Your task to perform on an android device: What's the news in Uruguay? Image 0: 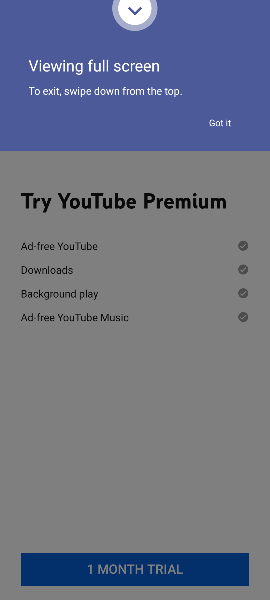
Step 0: press home button
Your task to perform on an android device: What's the news in Uruguay? Image 1: 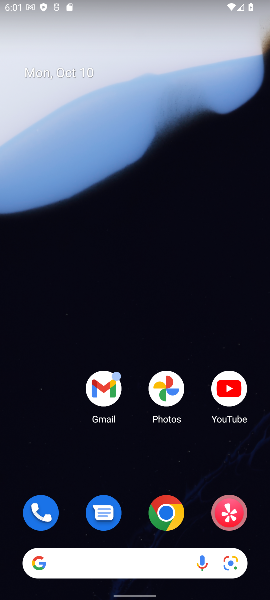
Step 1: click (138, 576)
Your task to perform on an android device: What's the news in Uruguay? Image 2: 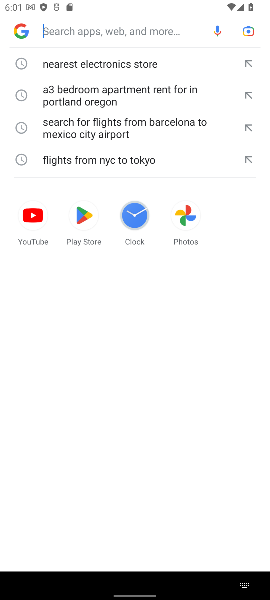
Step 2: type "the news in Uruguay?"
Your task to perform on an android device: What's the news in Uruguay? Image 3: 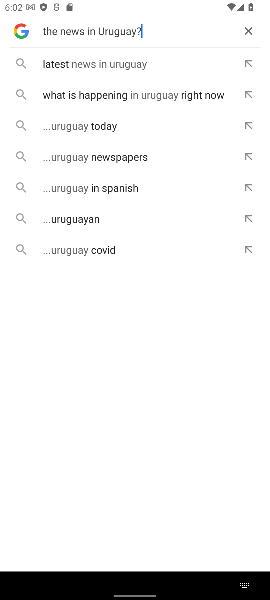
Step 3: click (153, 75)
Your task to perform on an android device: What's the news in Uruguay? Image 4: 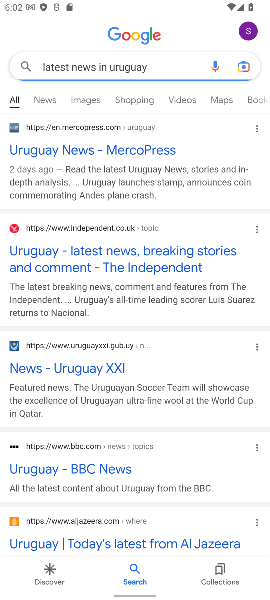
Step 4: task complete